Your task to perform on an android device: open chrome and create a bookmark for the current page Image 0: 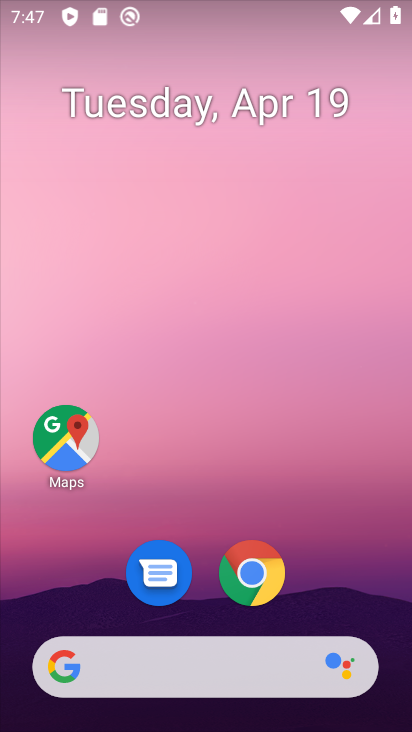
Step 0: drag from (301, 513) to (243, 98)
Your task to perform on an android device: open chrome and create a bookmark for the current page Image 1: 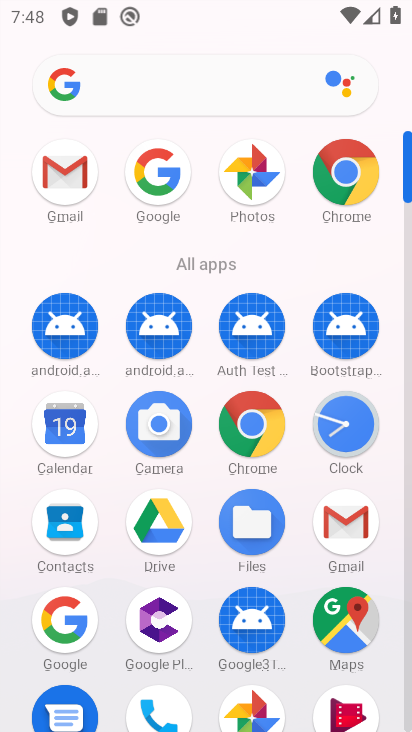
Step 1: click (243, 424)
Your task to perform on an android device: open chrome and create a bookmark for the current page Image 2: 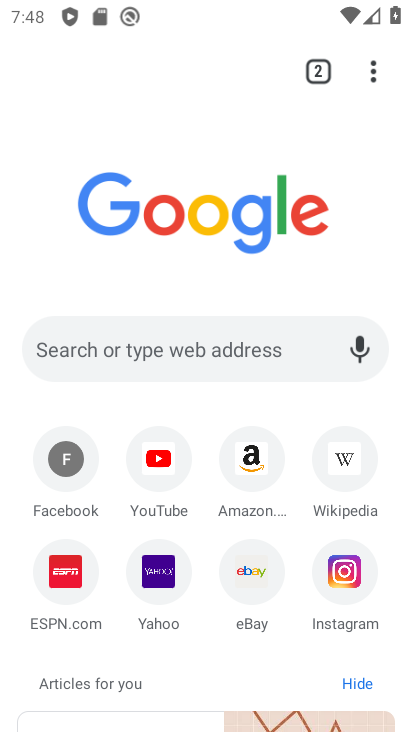
Step 2: task complete